Your task to perform on an android device: Go to wifi settings Image 0: 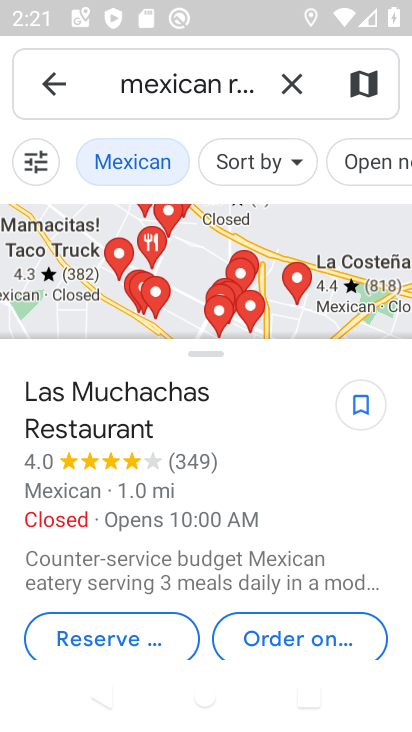
Step 0: press home button
Your task to perform on an android device: Go to wifi settings Image 1: 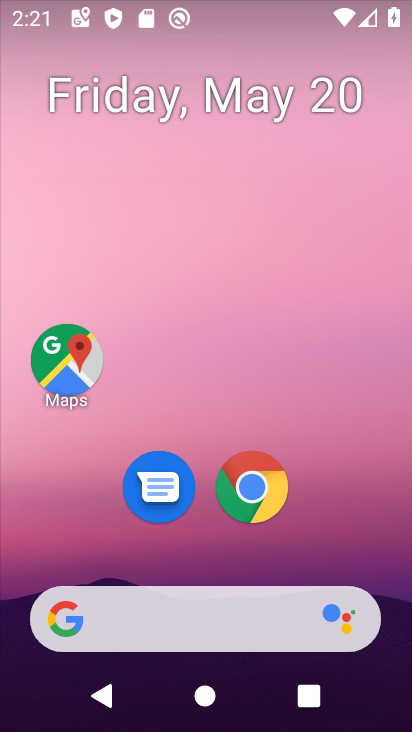
Step 1: drag from (316, 451) to (300, 38)
Your task to perform on an android device: Go to wifi settings Image 2: 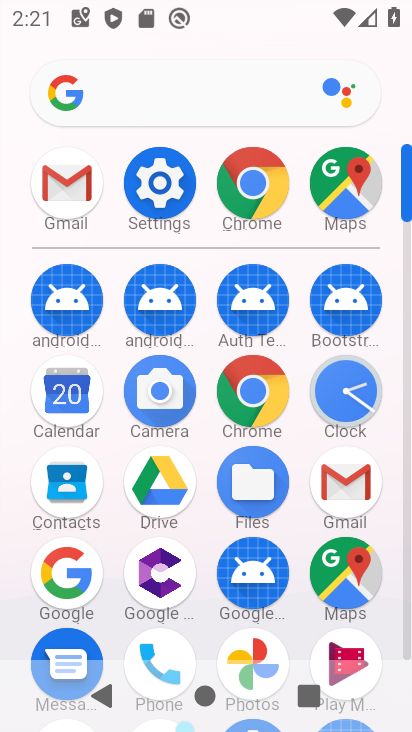
Step 2: click (150, 166)
Your task to perform on an android device: Go to wifi settings Image 3: 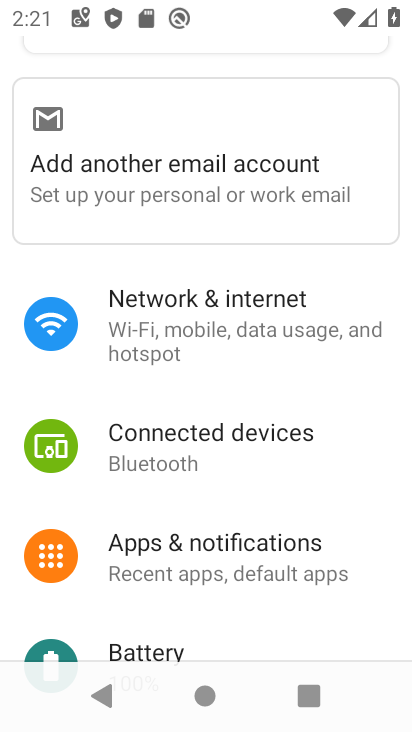
Step 3: click (190, 318)
Your task to perform on an android device: Go to wifi settings Image 4: 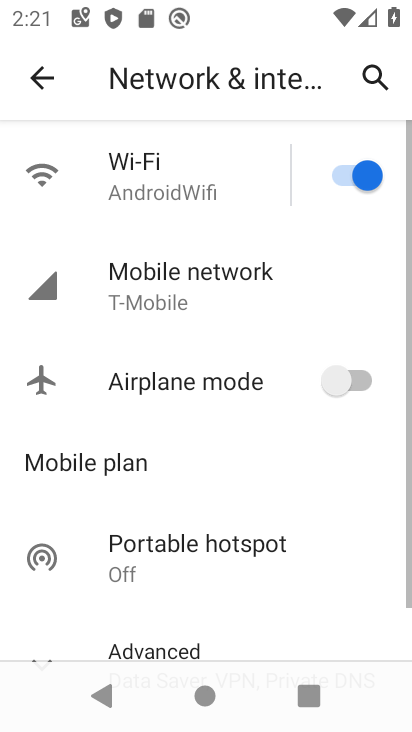
Step 4: click (155, 179)
Your task to perform on an android device: Go to wifi settings Image 5: 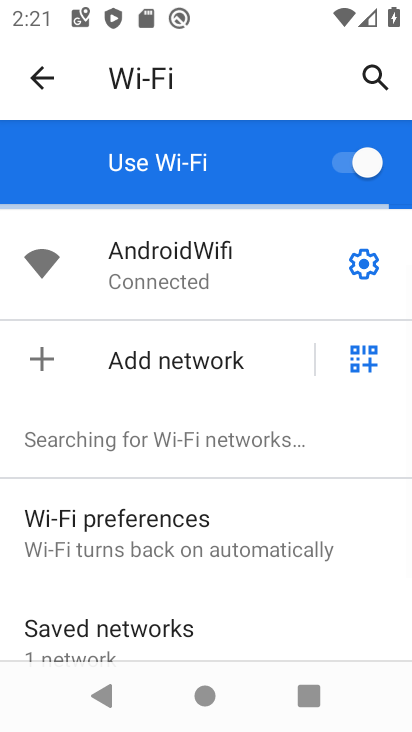
Step 5: task complete